Your task to perform on an android device: change the clock display to analog Image 0: 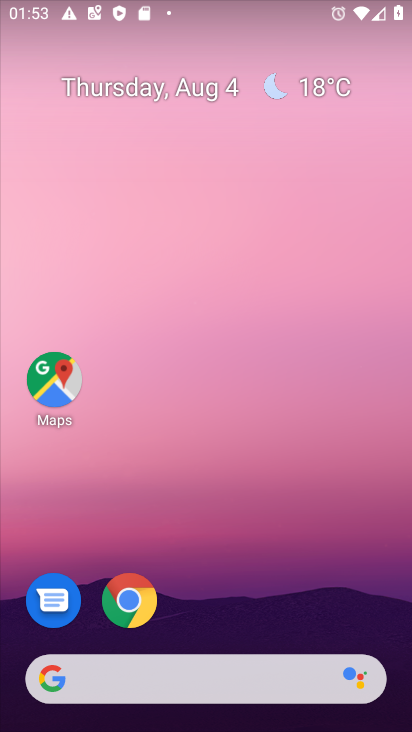
Step 0: drag from (156, 673) to (330, 80)
Your task to perform on an android device: change the clock display to analog Image 1: 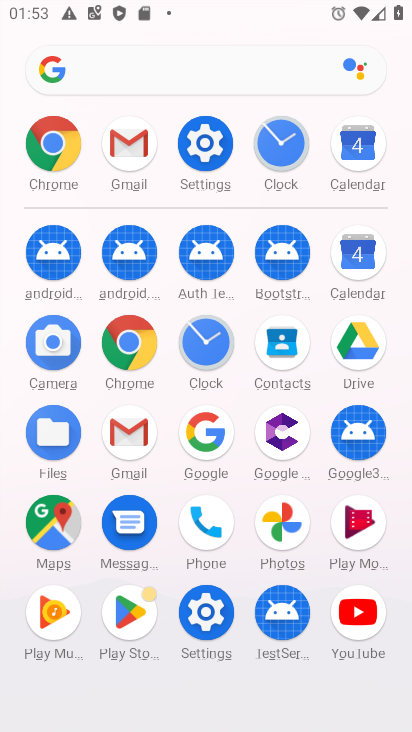
Step 1: click (217, 344)
Your task to perform on an android device: change the clock display to analog Image 2: 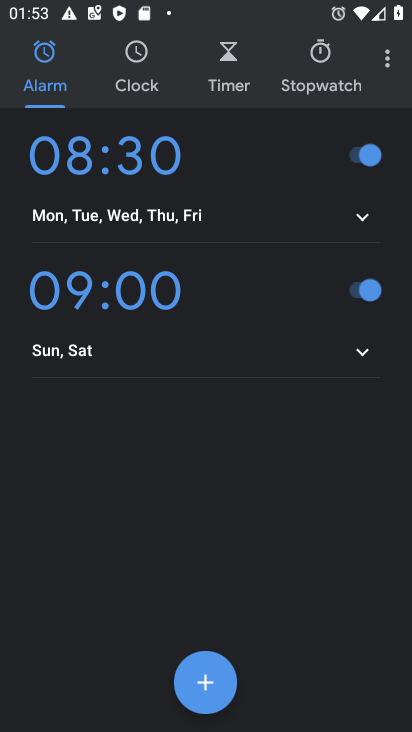
Step 2: click (391, 56)
Your task to perform on an android device: change the clock display to analog Image 3: 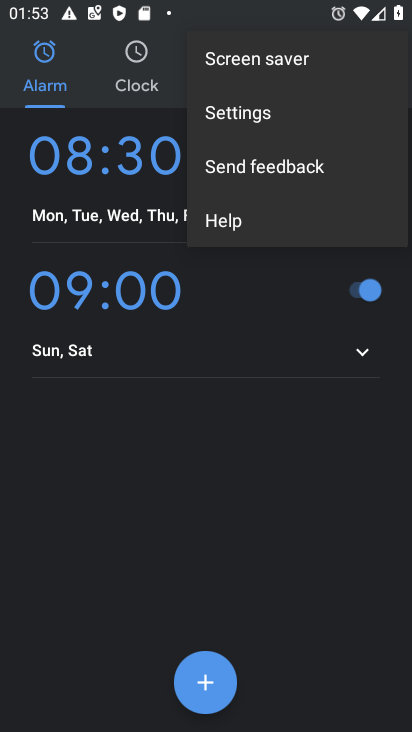
Step 3: click (261, 112)
Your task to perform on an android device: change the clock display to analog Image 4: 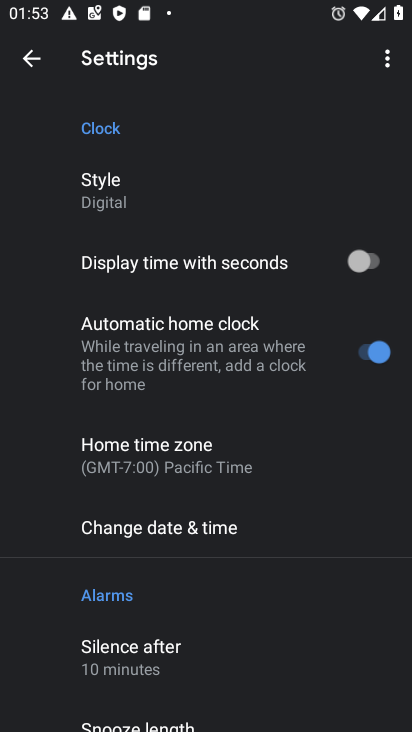
Step 4: click (112, 193)
Your task to perform on an android device: change the clock display to analog Image 5: 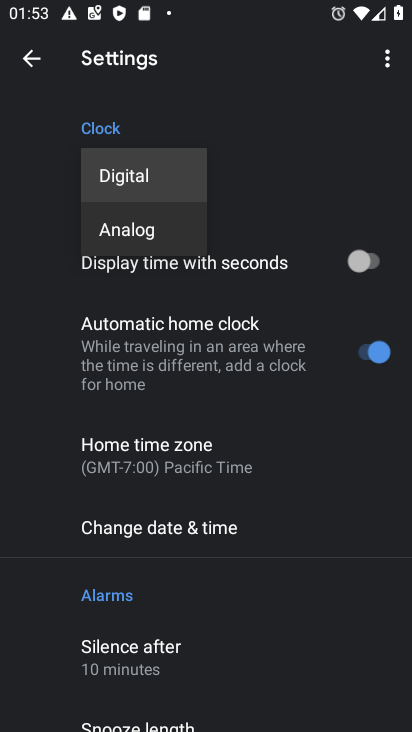
Step 5: click (144, 231)
Your task to perform on an android device: change the clock display to analog Image 6: 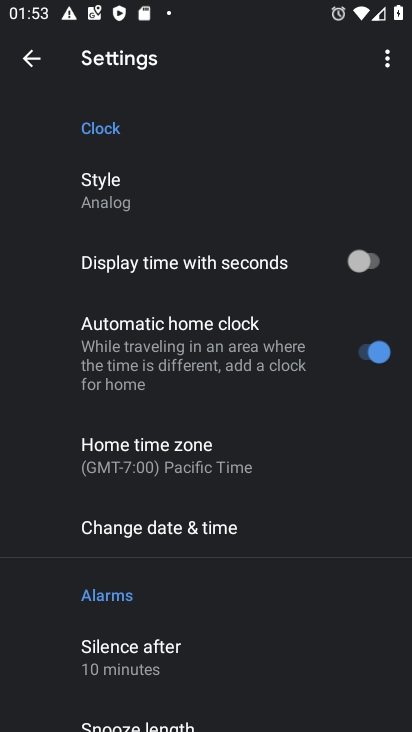
Step 6: task complete